Your task to perform on an android device: Open maps Image 0: 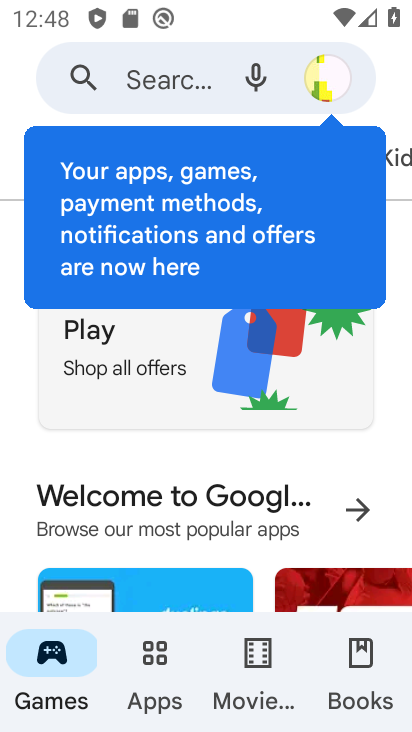
Step 0: press home button
Your task to perform on an android device: Open maps Image 1: 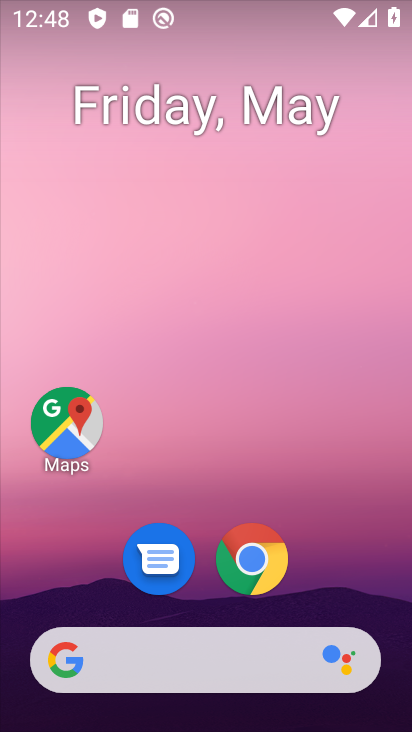
Step 1: drag from (381, 562) to (326, 121)
Your task to perform on an android device: Open maps Image 2: 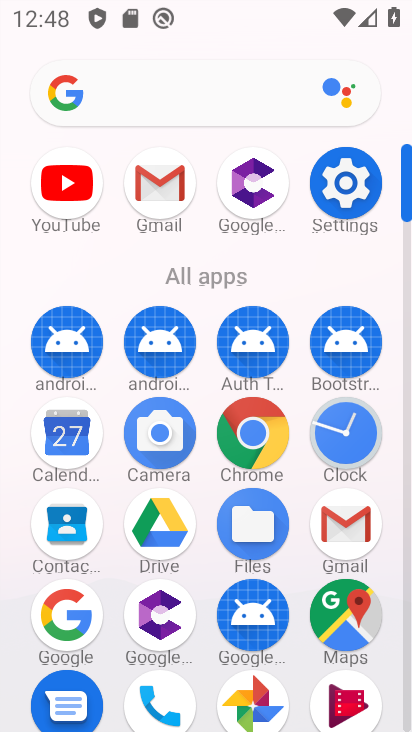
Step 2: click (323, 632)
Your task to perform on an android device: Open maps Image 3: 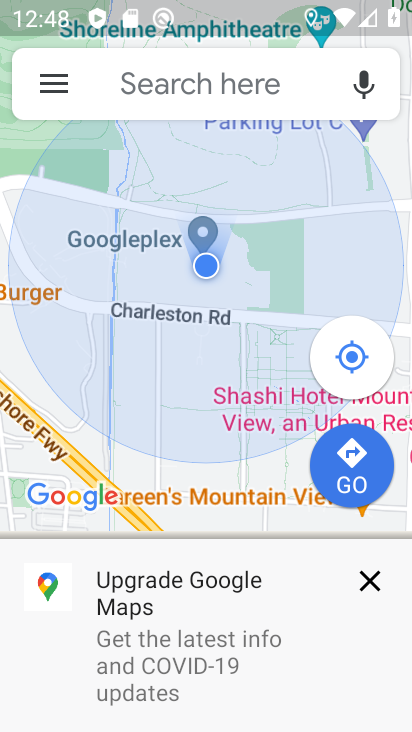
Step 3: task complete